Your task to perform on an android device: Clear all items from cart on costco.com. Search for jbl flip 4 on costco.com, select the first entry, add it to the cart, then select checkout. Image 0: 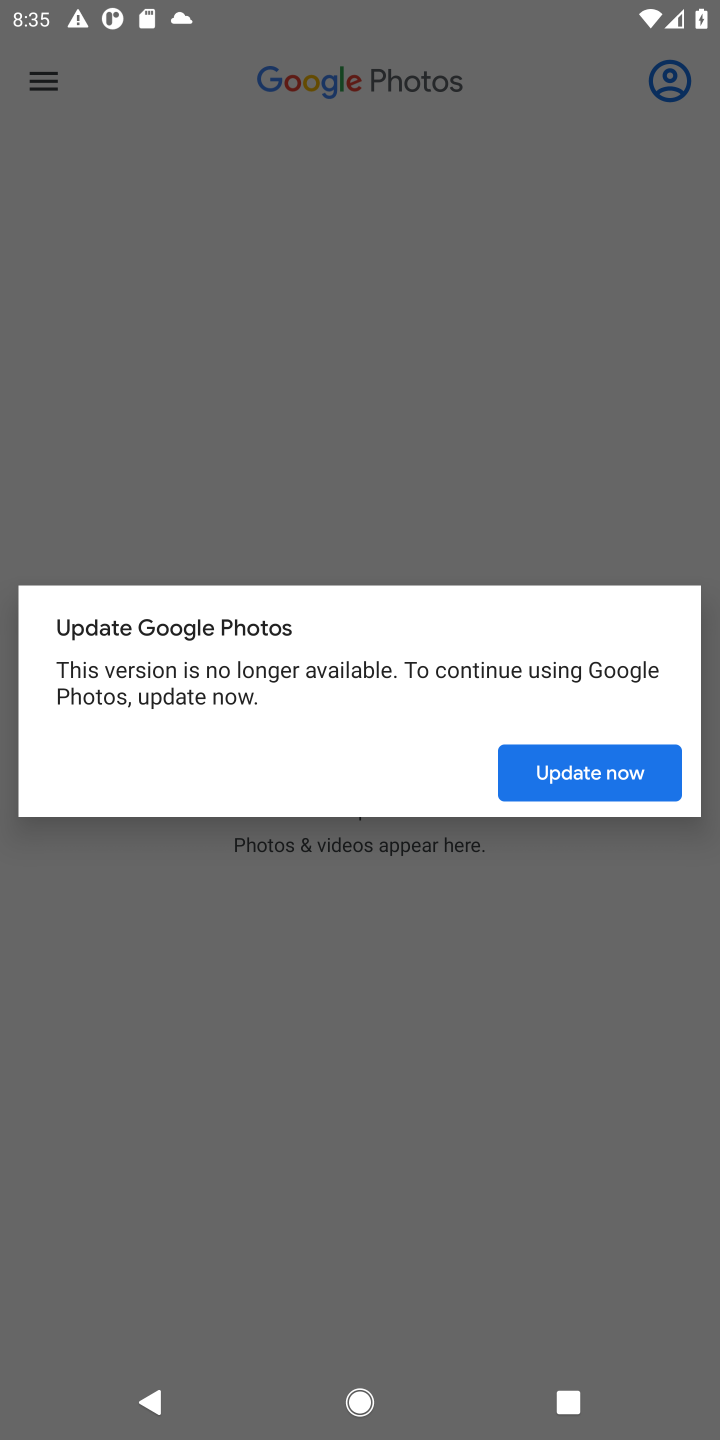
Step 0: press home button
Your task to perform on an android device: Clear all items from cart on costco.com. Search for jbl flip 4 on costco.com, select the first entry, add it to the cart, then select checkout. Image 1: 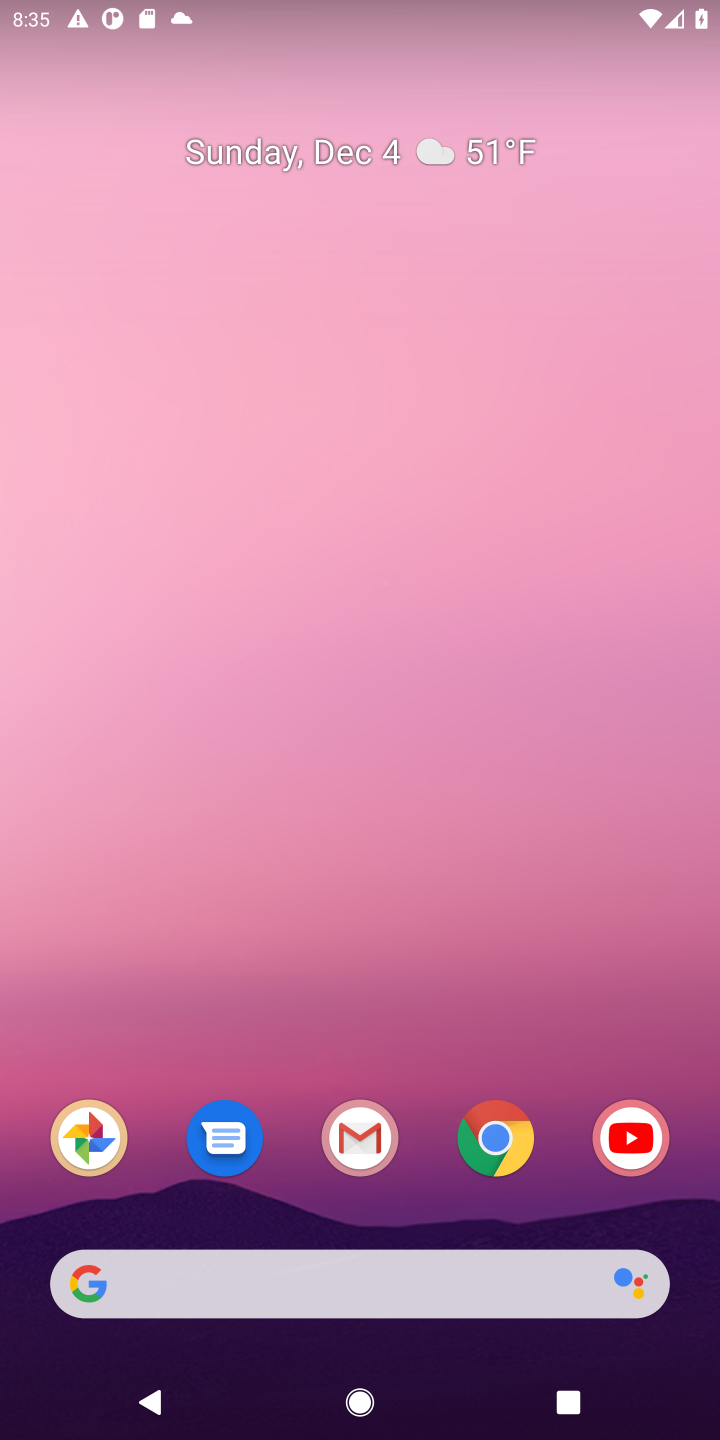
Step 1: click (515, 1160)
Your task to perform on an android device: Clear all items from cart on costco.com. Search for jbl flip 4 on costco.com, select the first entry, add it to the cart, then select checkout. Image 2: 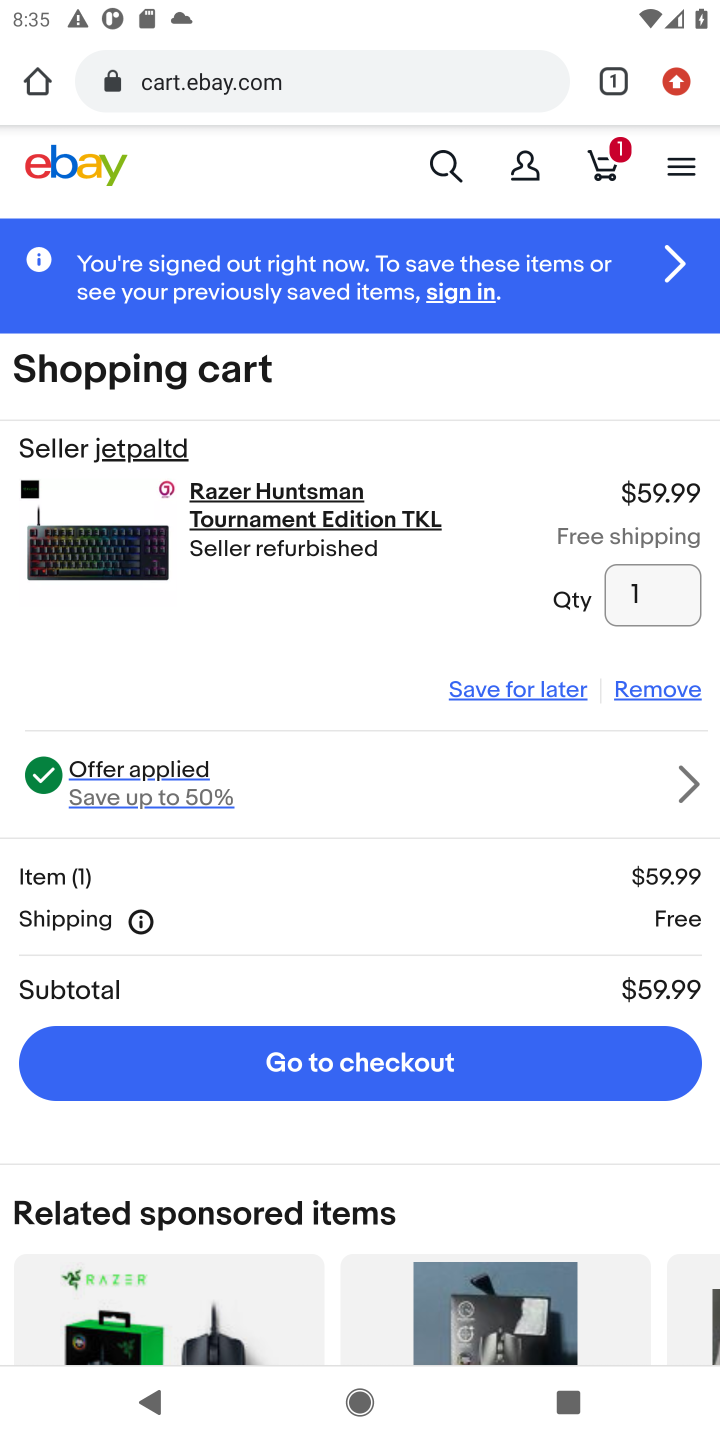
Step 2: click (350, 73)
Your task to perform on an android device: Clear all items from cart on costco.com. Search for jbl flip 4 on costco.com, select the first entry, add it to the cart, then select checkout. Image 3: 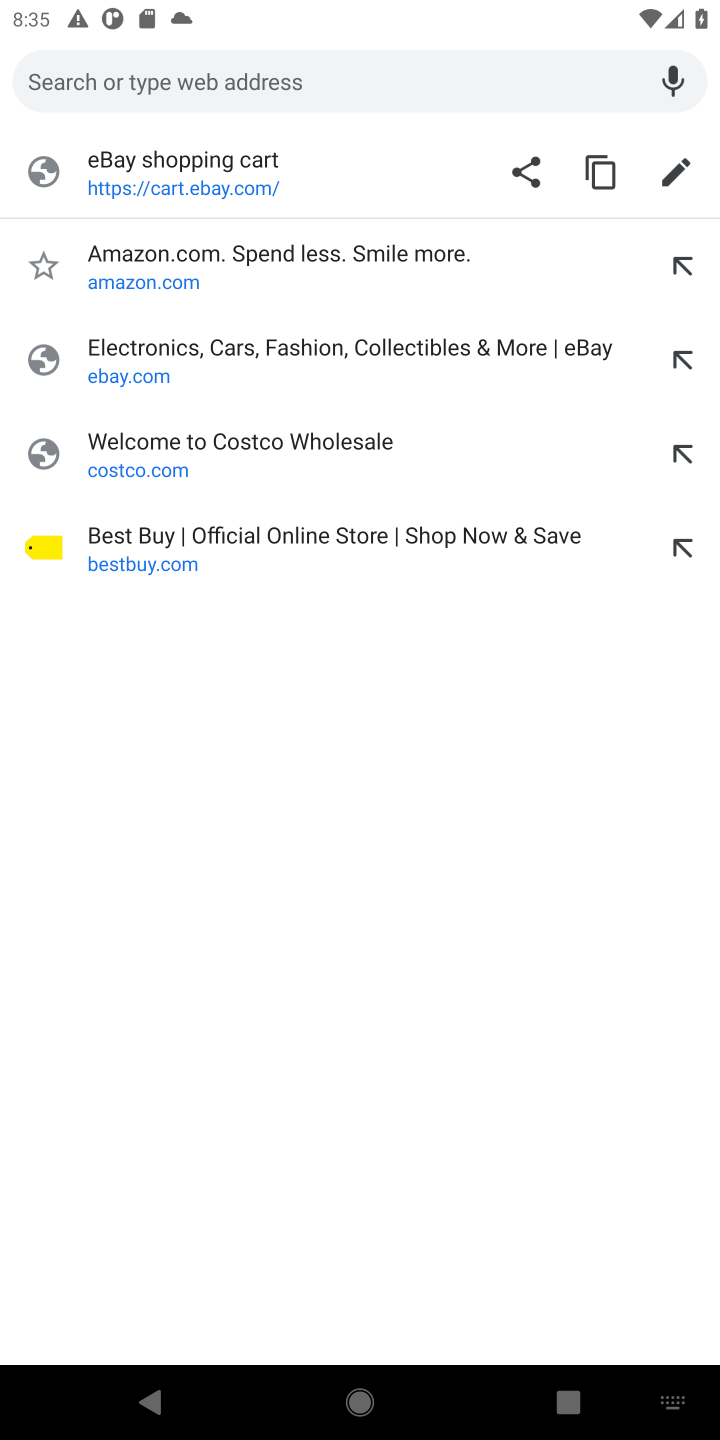
Step 3: click (213, 438)
Your task to perform on an android device: Clear all items from cart on costco.com. Search for jbl flip 4 on costco.com, select the first entry, add it to the cart, then select checkout. Image 4: 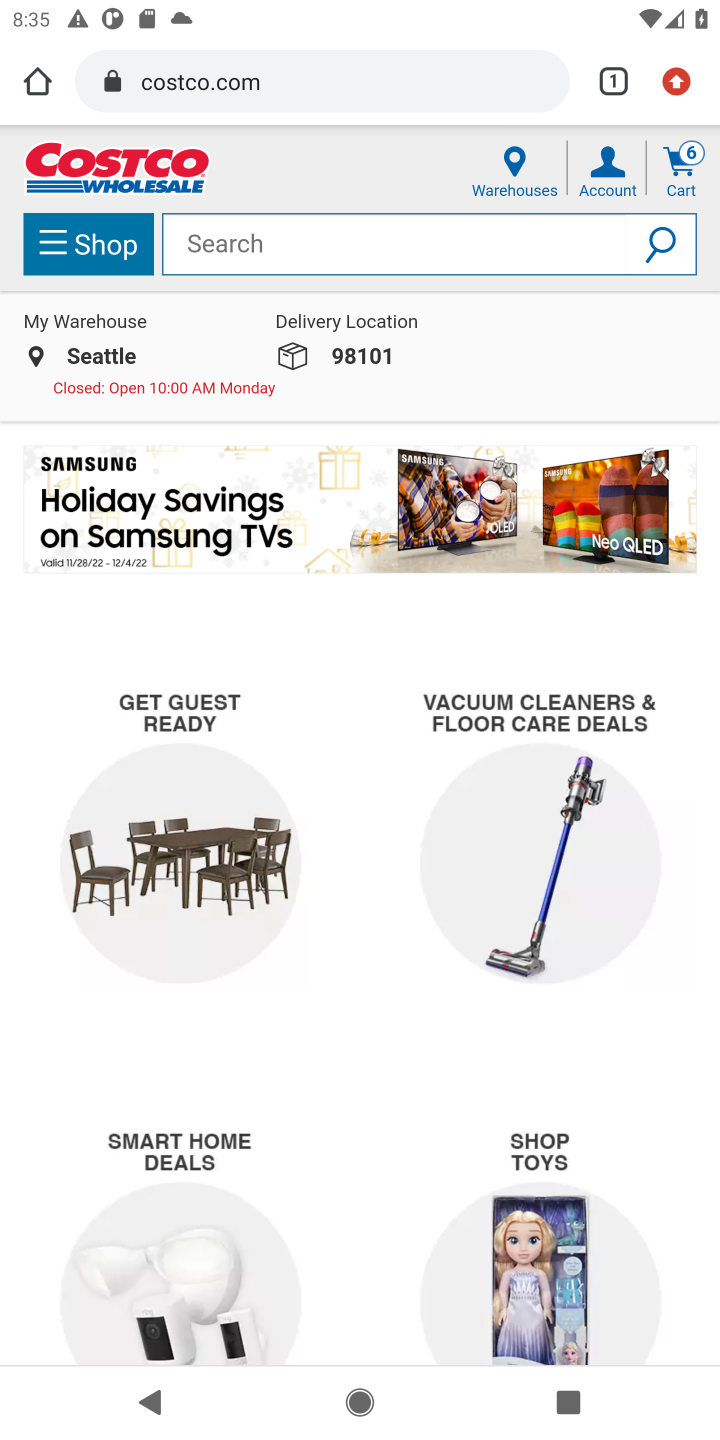
Step 4: click (682, 188)
Your task to perform on an android device: Clear all items from cart on costco.com. Search for jbl flip 4 on costco.com, select the first entry, add it to the cart, then select checkout. Image 5: 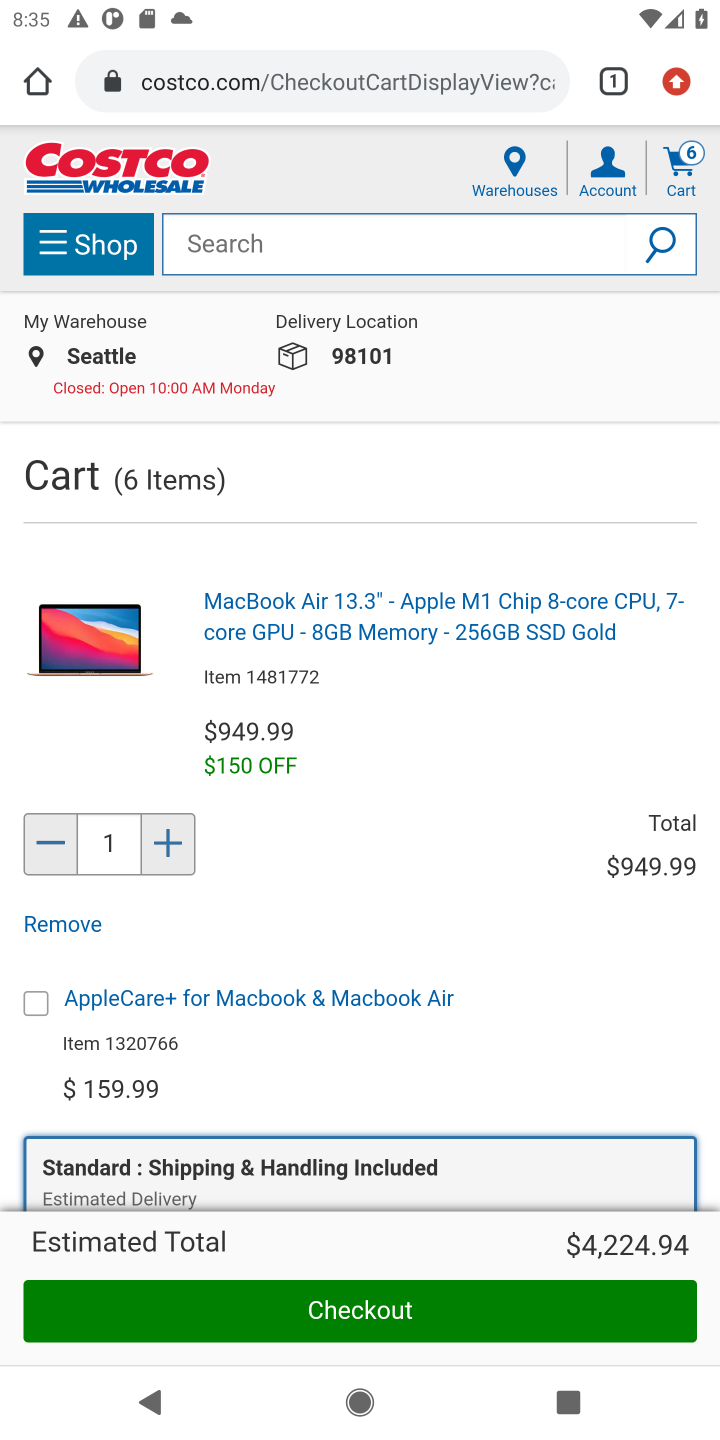
Step 5: click (63, 921)
Your task to perform on an android device: Clear all items from cart on costco.com. Search for jbl flip 4 on costco.com, select the first entry, add it to the cart, then select checkout. Image 6: 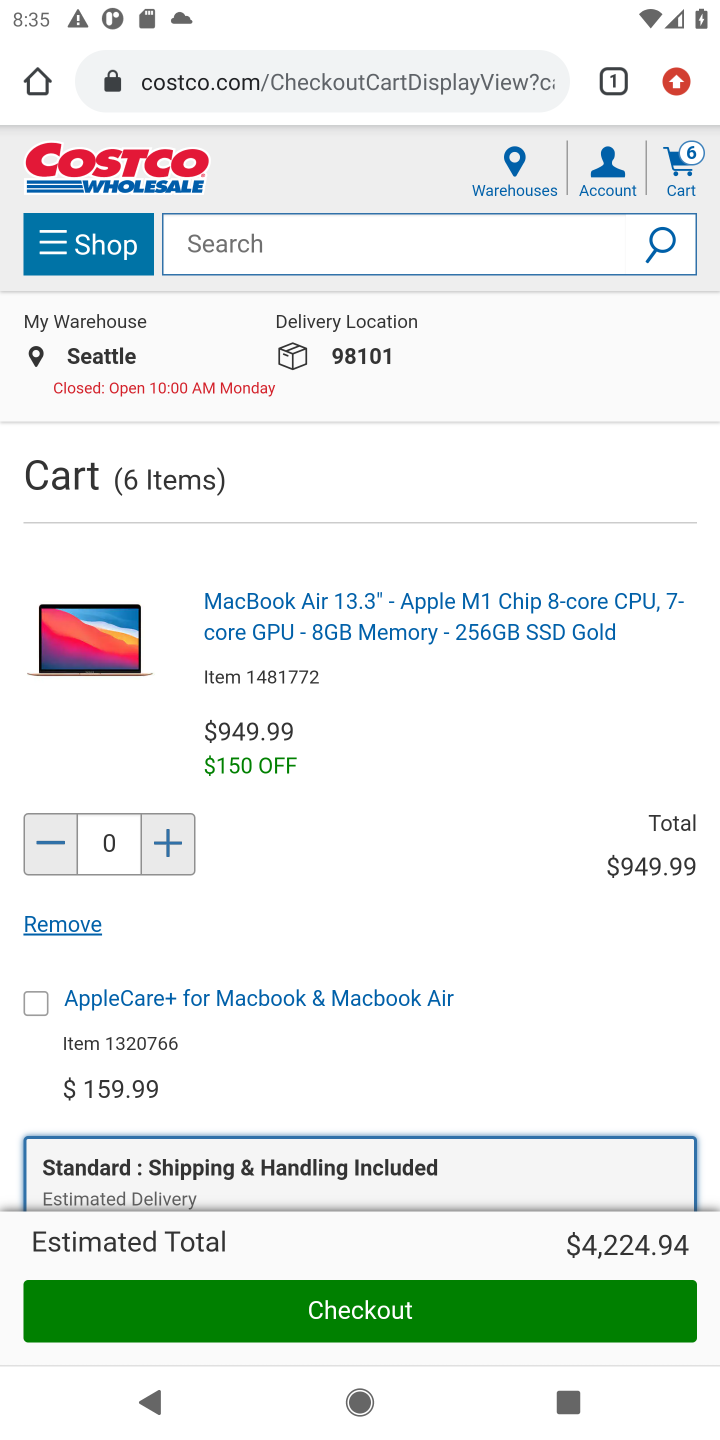
Step 6: drag from (243, 884) to (453, 259)
Your task to perform on an android device: Clear all items from cart on costco.com. Search for jbl flip 4 on costco.com, select the first entry, add it to the cart, then select checkout. Image 7: 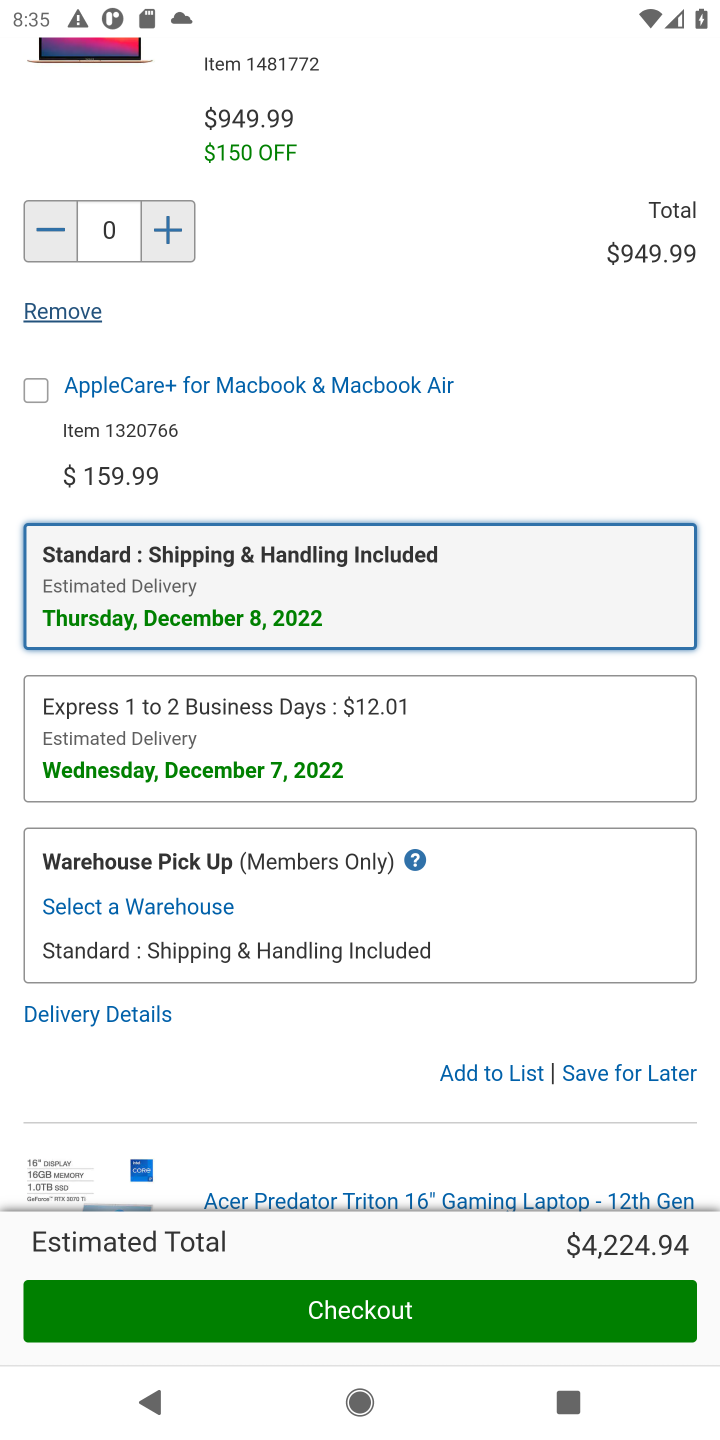
Step 7: drag from (308, 1030) to (453, 519)
Your task to perform on an android device: Clear all items from cart on costco.com. Search for jbl flip 4 on costco.com, select the first entry, add it to the cart, then select checkout. Image 8: 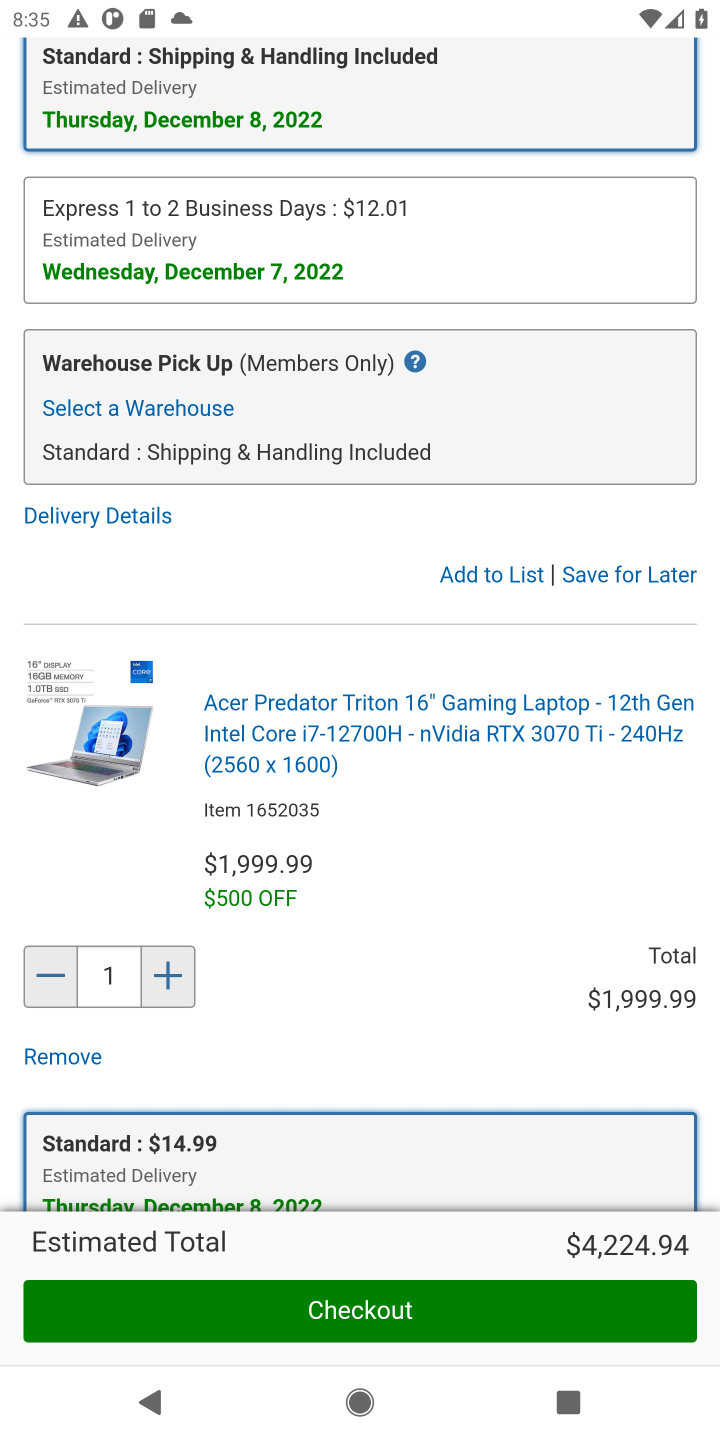
Step 8: click (61, 1055)
Your task to perform on an android device: Clear all items from cart on costco.com. Search for jbl flip 4 on costco.com, select the first entry, add it to the cart, then select checkout. Image 9: 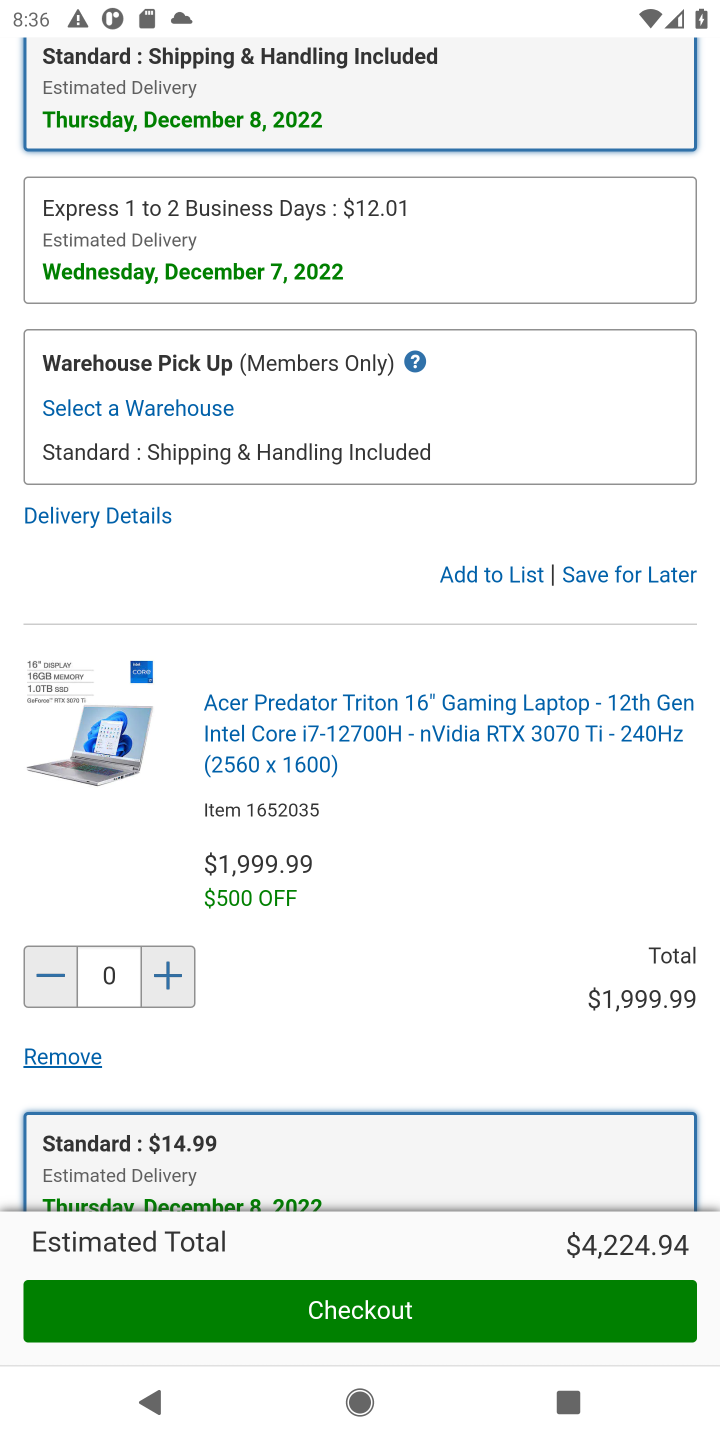
Step 9: drag from (324, 1010) to (540, 171)
Your task to perform on an android device: Clear all items from cart on costco.com. Search for jbl flip 4 on costco.com, select the first entry, add it to the cart, then select checkout. Image 10: 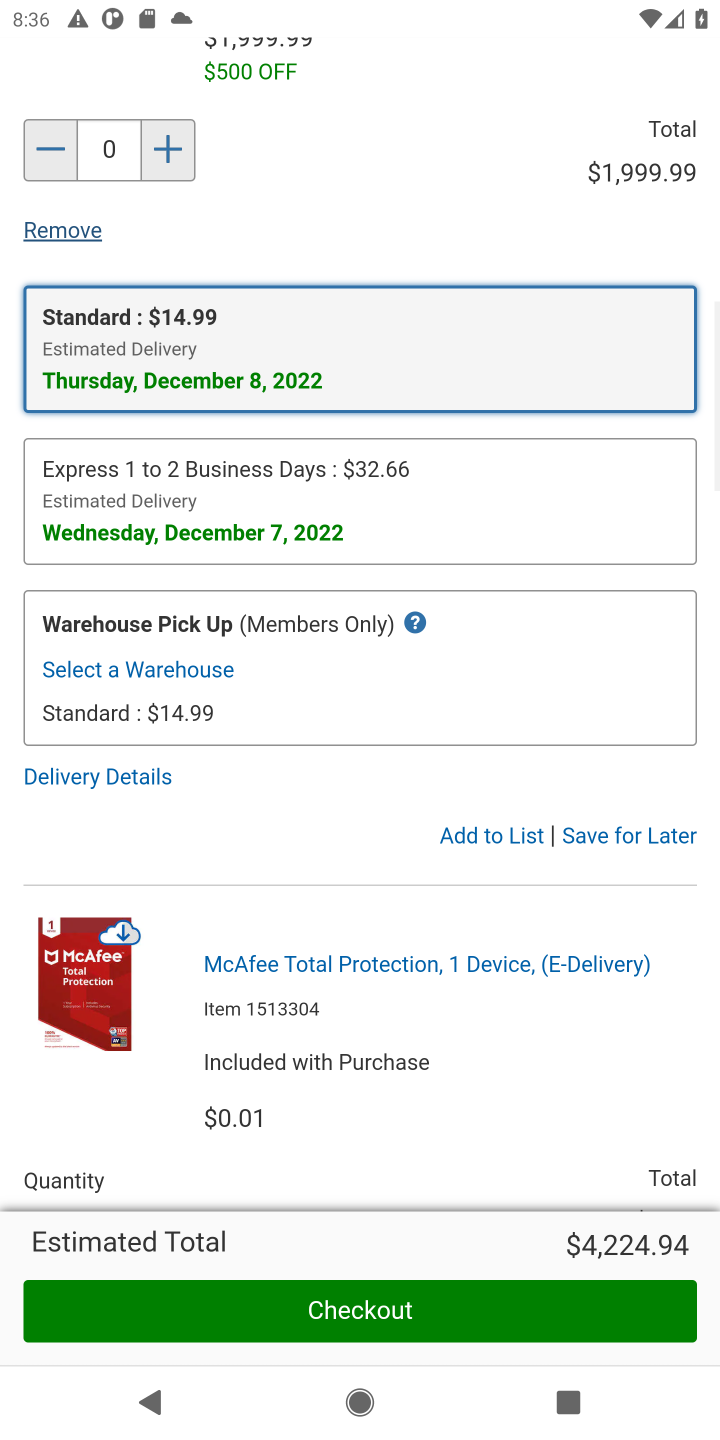
Step 10: drag from (304, 877) to (487, 177)
Your task to perform on an android device: Clear all items from cart on costco.com. Search for jbl flip 4 on costco.com, select the first entry, add it to the cart, then select checkout. Image 11: 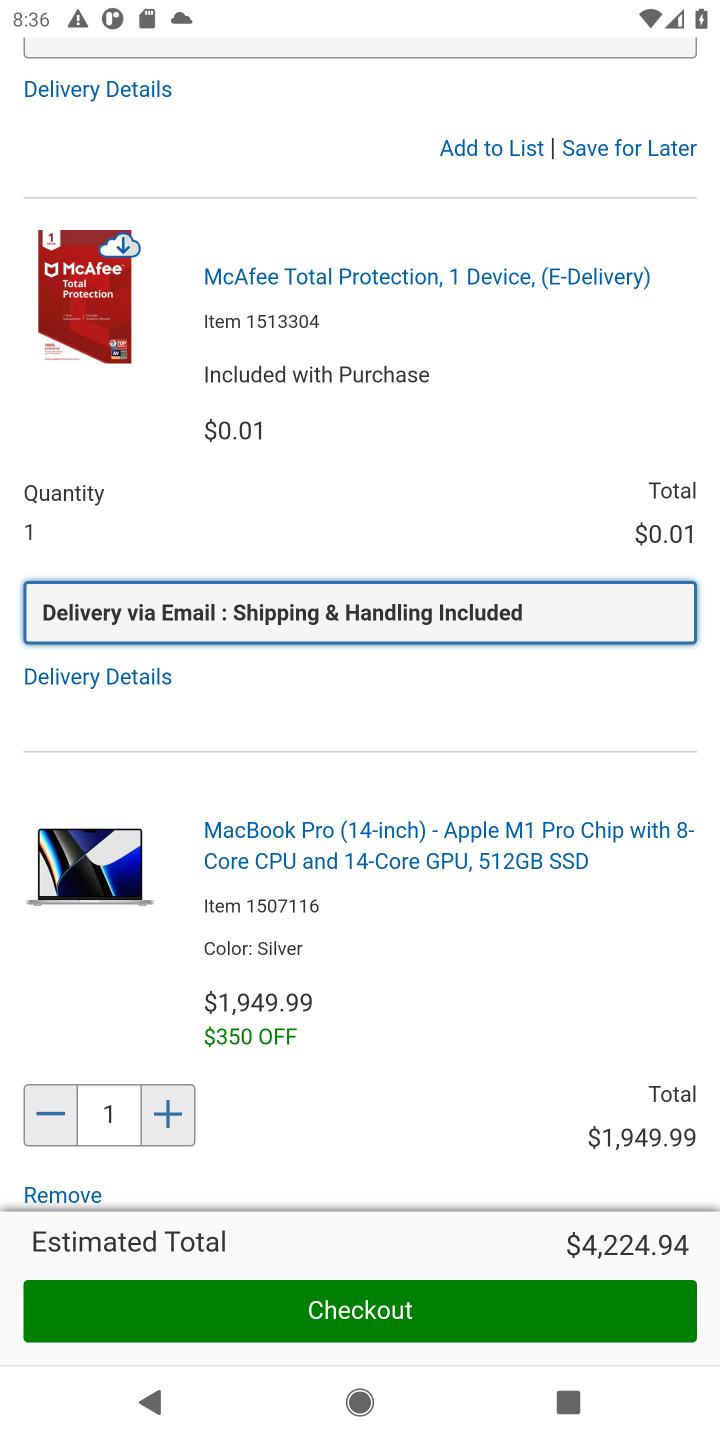
Step 11: drag from (434, 1098) to (562, 337)
Your task to perform on an android device: Clear all items from cart on costco.com. Search for jbl flip 4 on costco.com, select the first entry, add it to the cart, then select checkout. Image 12: 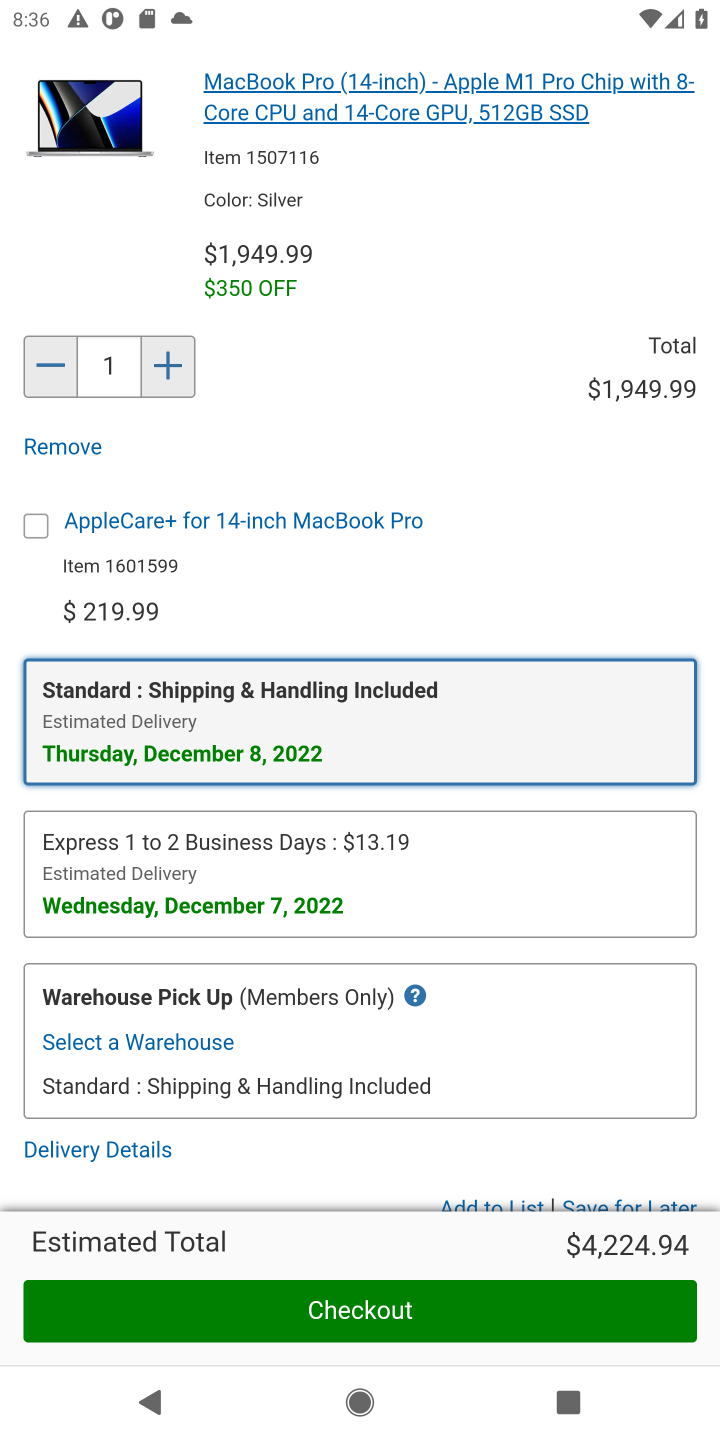
Step 12: click (66, 445)
Your task to perform on an android device: Clear all items from cart on costco.com. Search for jbl flip 4 on costco.com, select the first entry, add it to the cart, then select checkout. Image 13: 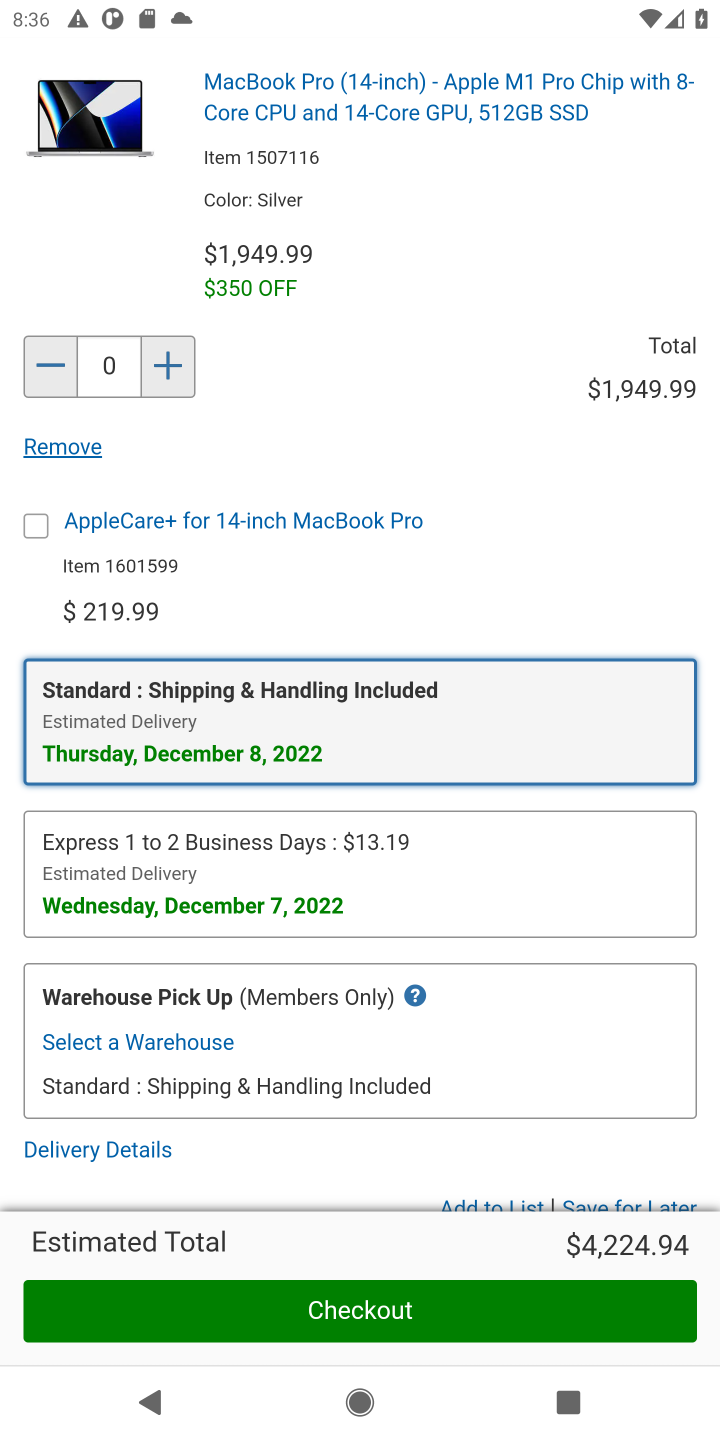
Step 13: drag from (479, 1142) to (588, 306)
Your task to perform on an android device: Clear all items from cart on costco.com. Search for jbl flip 4 on costco.com, select the first entry, add it to the cart, then select checkout. Image 14: 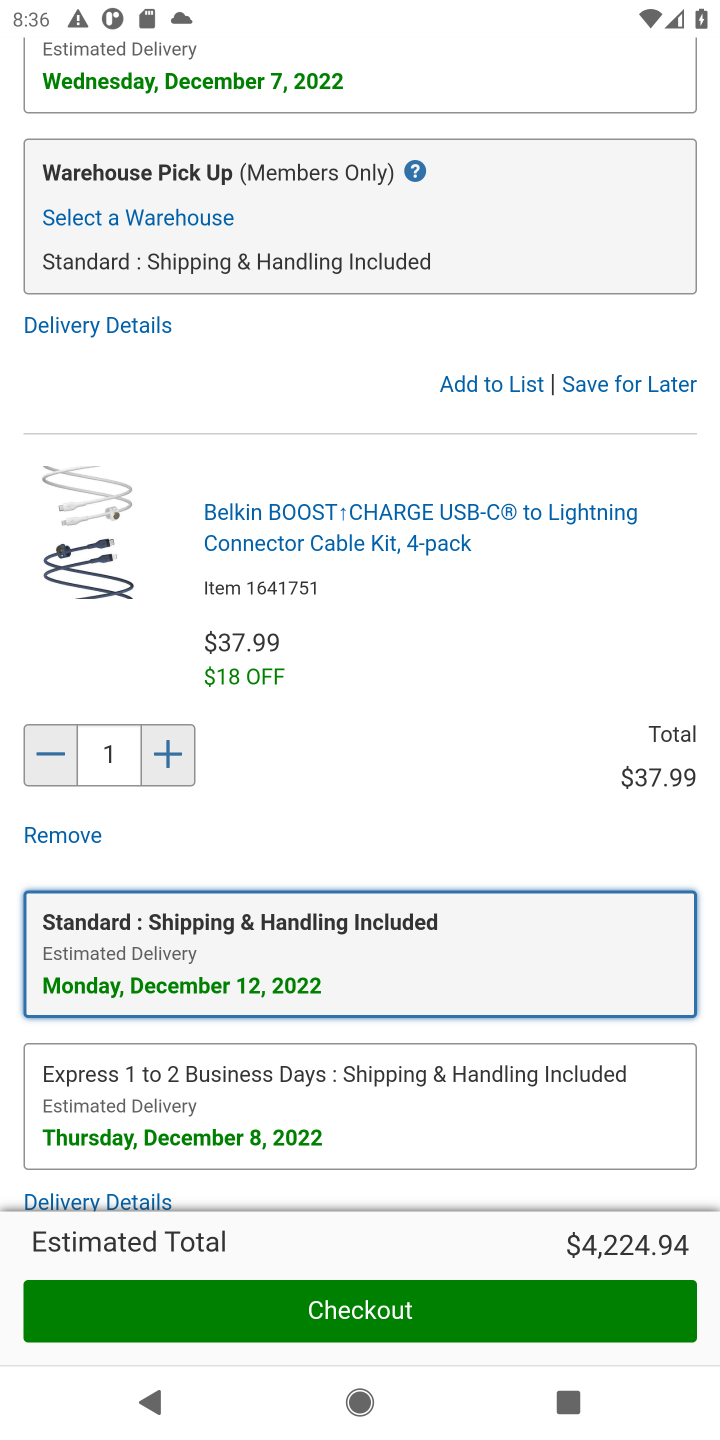
Step 14: click (74, 828)
Your task to perform on an android device: Clear all items from cart on costco.com. Search for jbl flip 4 on costco.com, select the first entry, add it to the cart, then select checkout. Image 15: 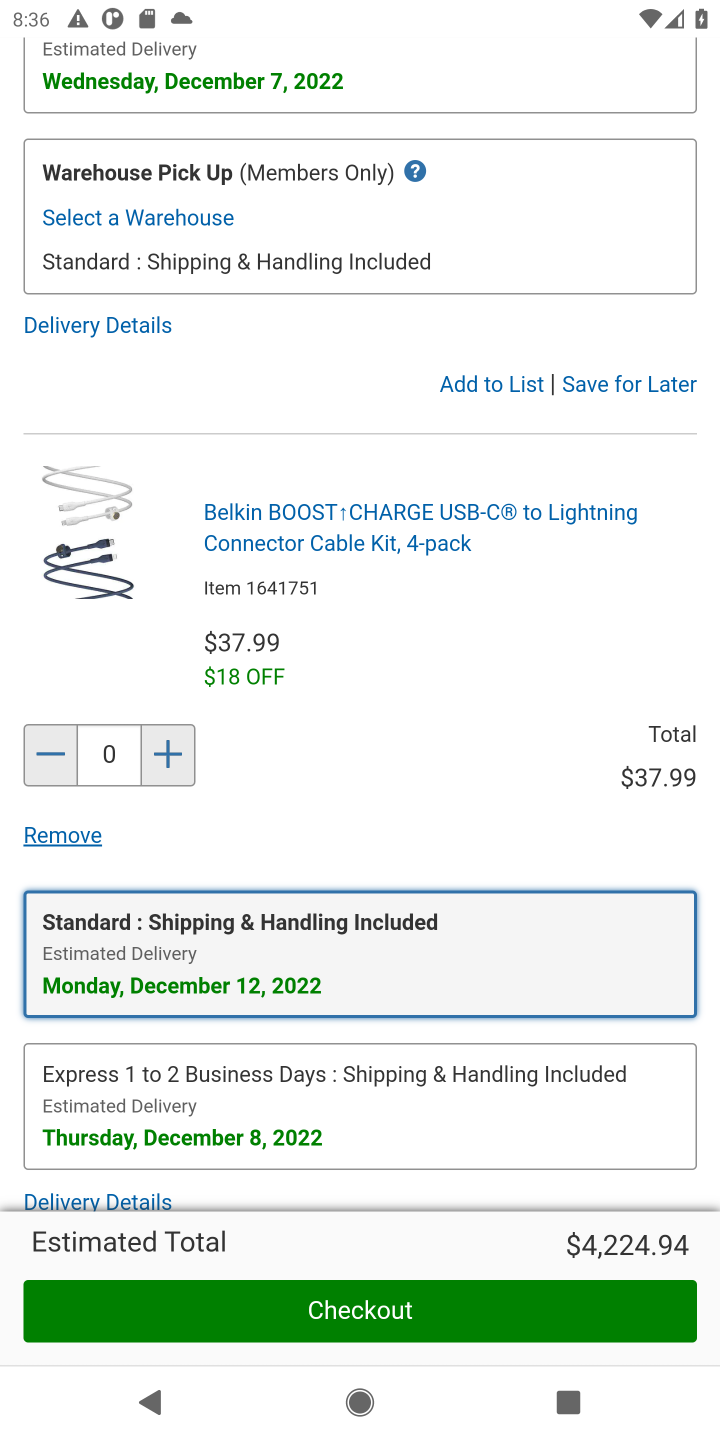
Step 15: drag from (331, 805) to (479, 114)
Your task to perform on an android device: Clear all items from cart on costco.com. Search for jbl flip 4 on costco.com, select the first entry, add it to the cart, then select checkout. Image 16: 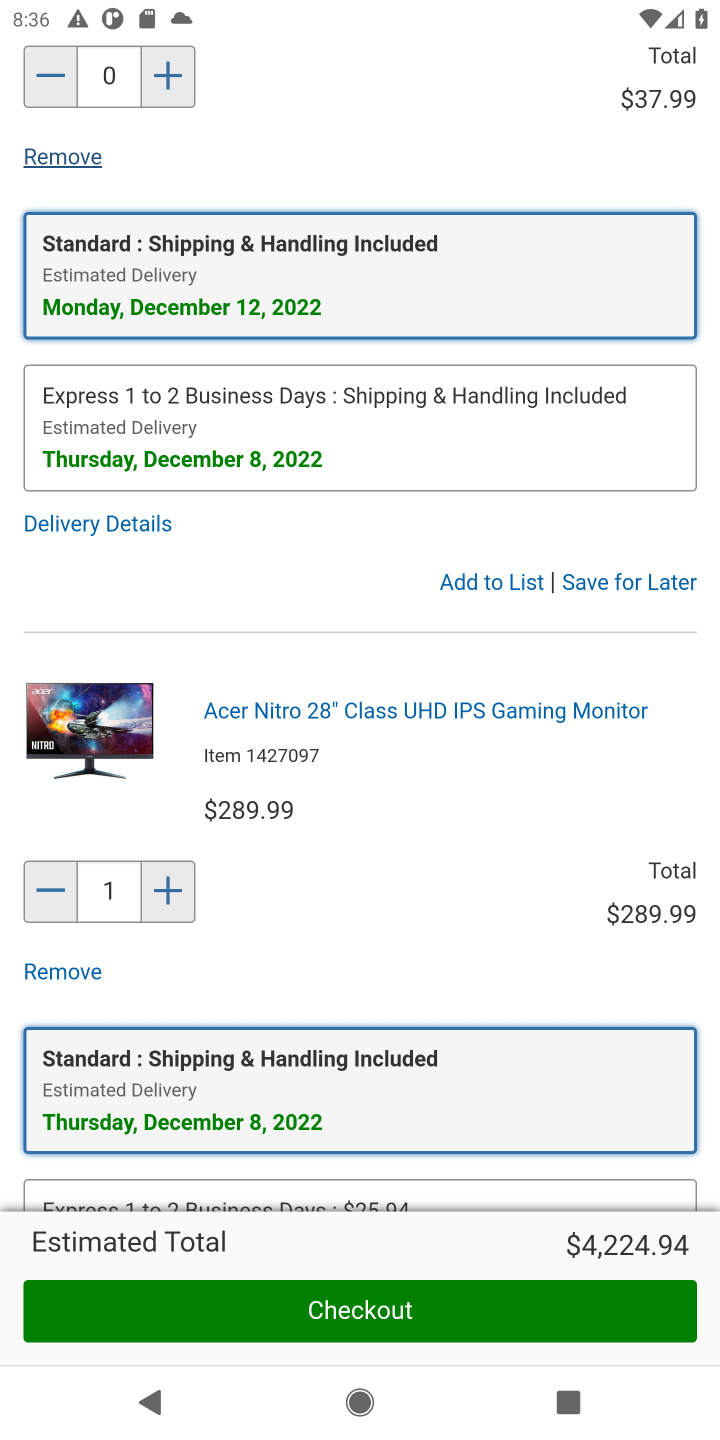
Step 16: click (79, 965)
Your task to perform on an android device: Clear all items from cart on costco.com. Search for jbl flip 4 on costco.com, select the first entry, add it to the cart, then select checkout. Image 17: 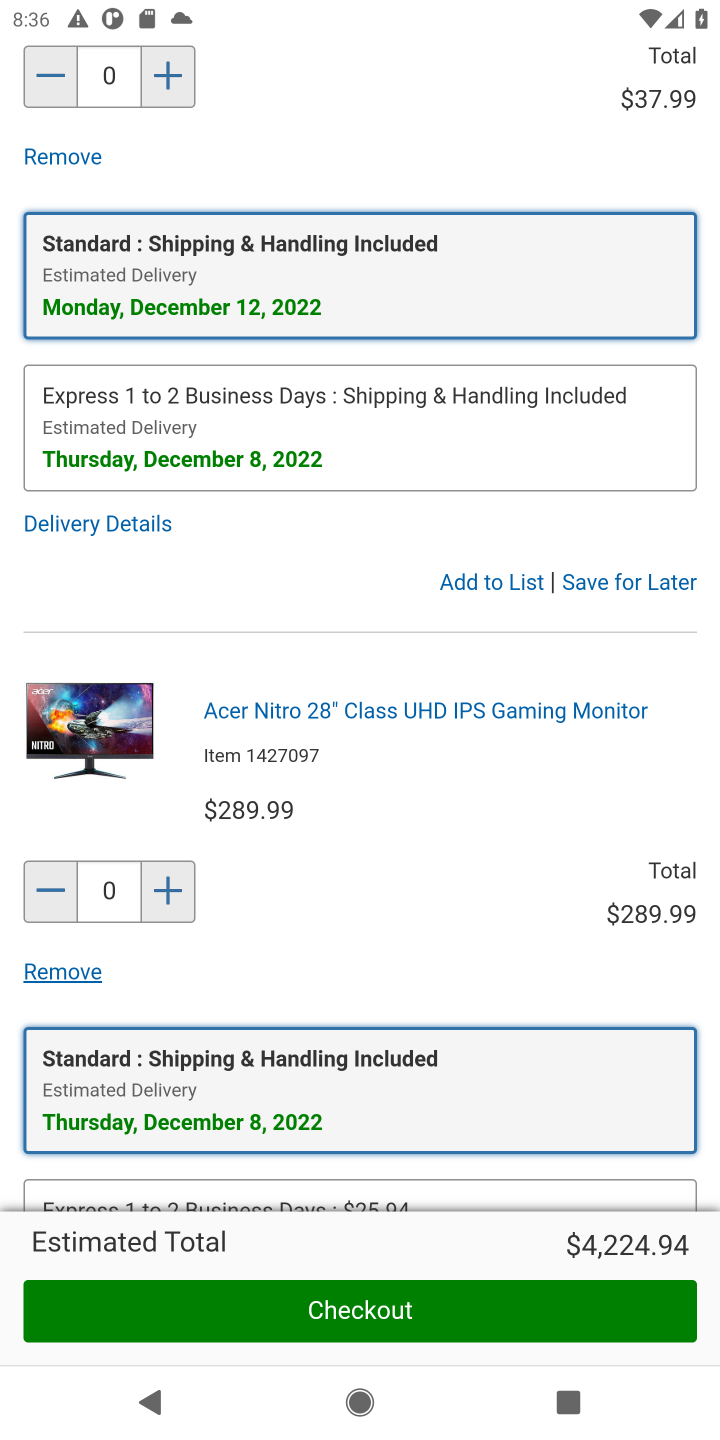
Step 17: drag from (329, 948) to (624, 122)
Your task to perform on an android device: Clear all items from cart on costco.com. Search for jbl flip 4 on costco.com, select the first entry, add it to the cart, then select checkout. Image 18: 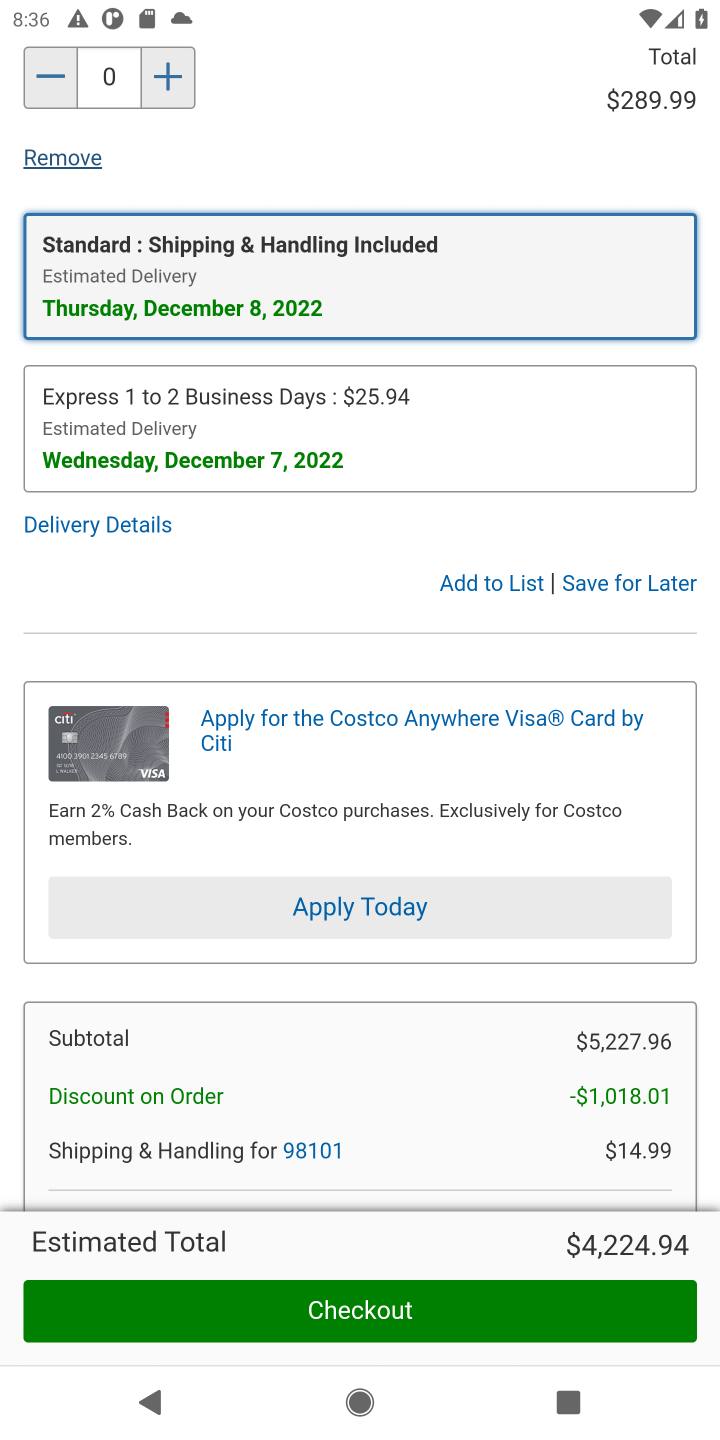
Step 18: press back button
Your task to perform on an android device: Clear all items from cart on costco.com. Search for jbl flip 4 on costco.com, select the first entry, add it to the cart, then select checkout. Image 19: 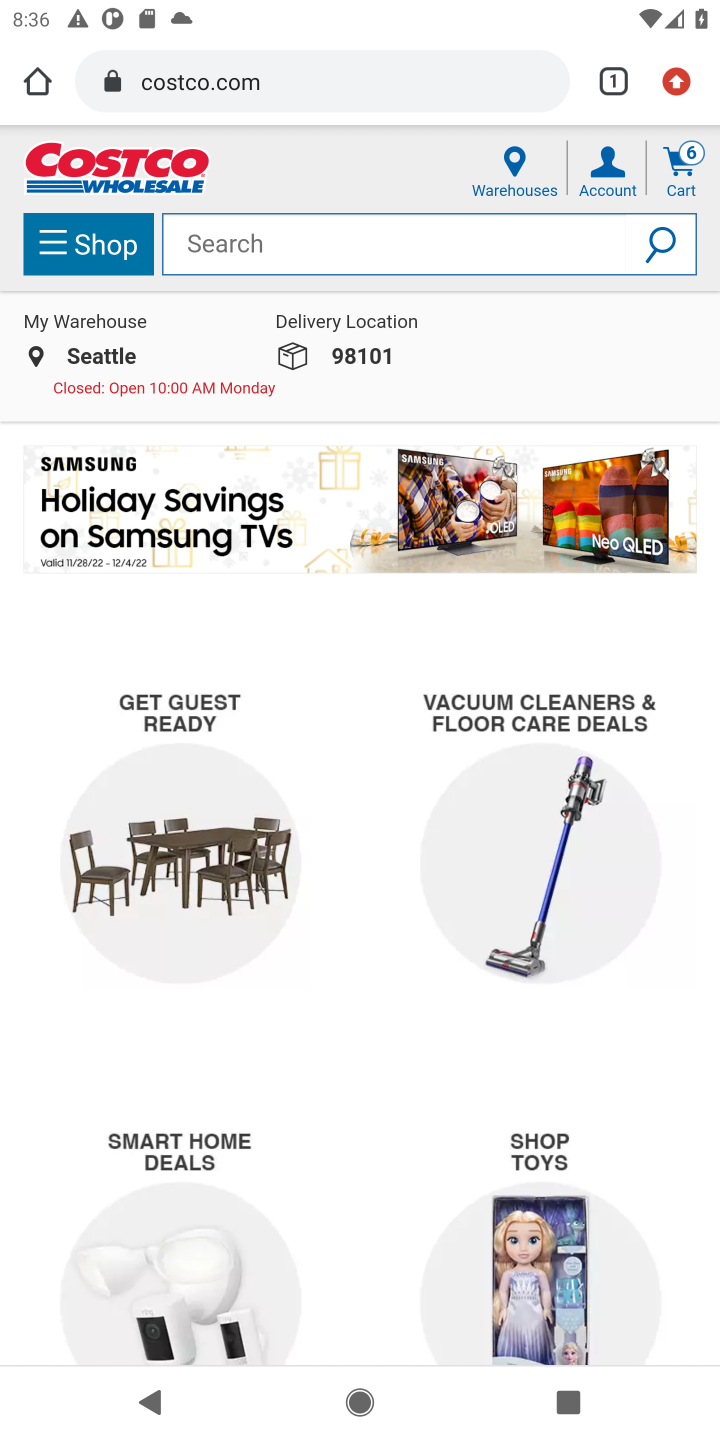
Step 19: click (388, 240)
Your task to perform on an android device: Clear all items from cart on costco.com. Search for jbl flip 4 on costco.com, select the first entry, add it to the cart, then select checkout. Image 20: 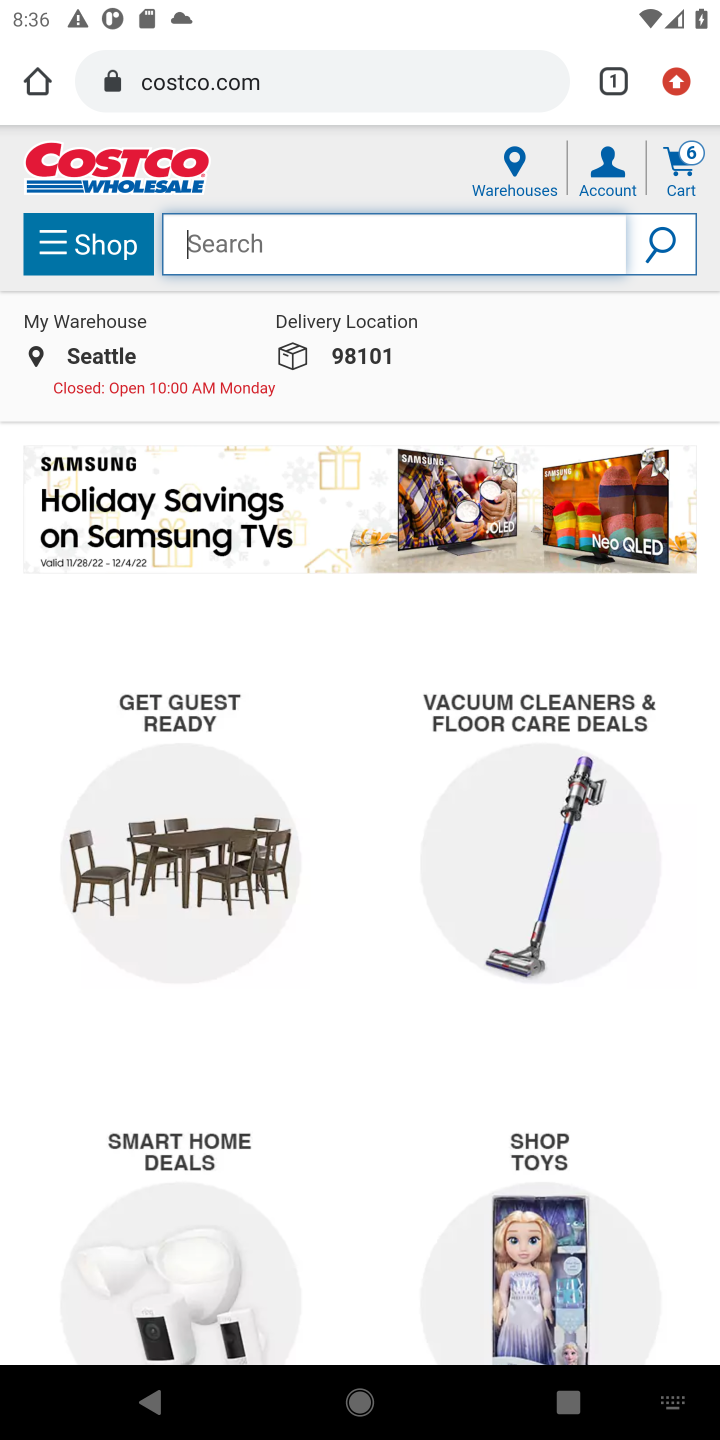
Step 20: type " jbl flip 4"
Your task to perform on an android device: Clear all items from cart on costco.com. Search for jbl flip 4 on costco.com, select the first entry, add it to the cart, then select checkout. Image 21: 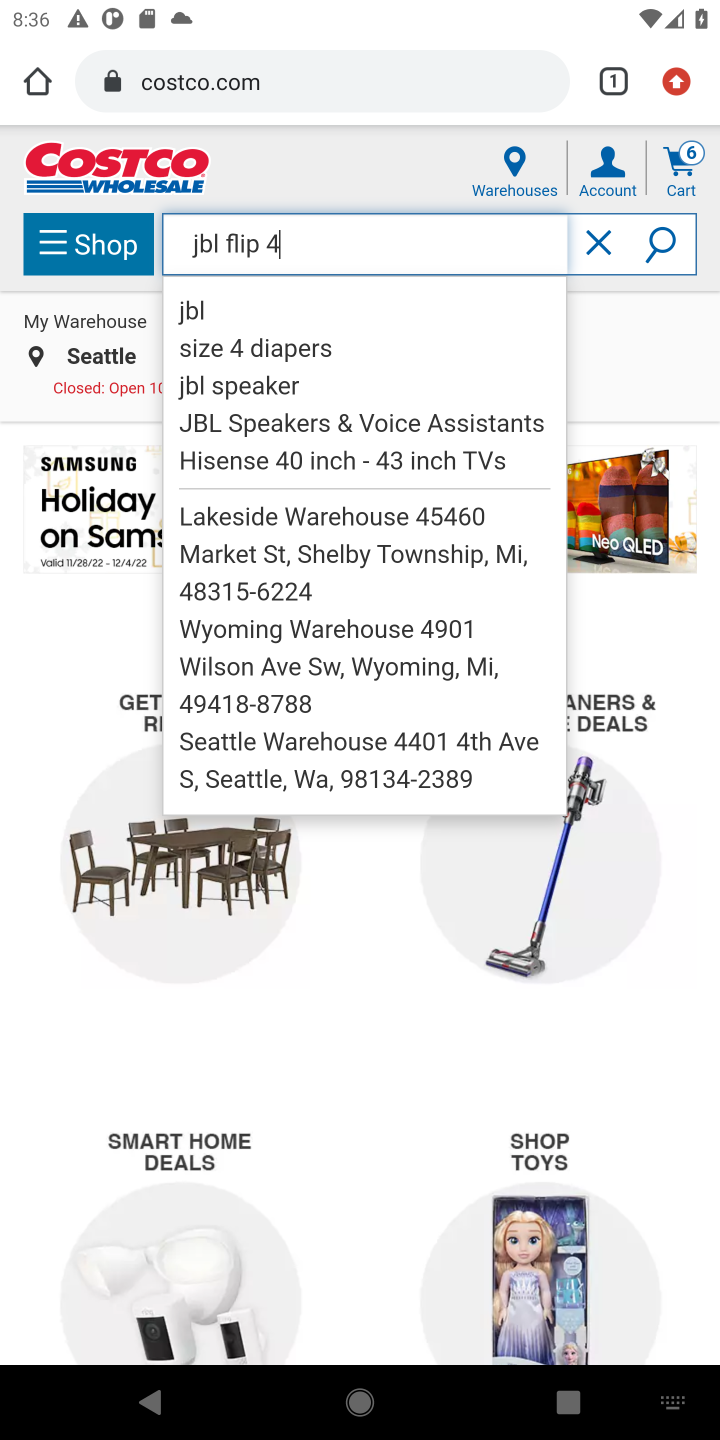
Step 21: press enter
Your task to perform on an android device: Clear all items from cart on costco.com. Search for jbl flip 4 on costco.com, select the first entry, add it to the cart, then select checkout. Image 22: 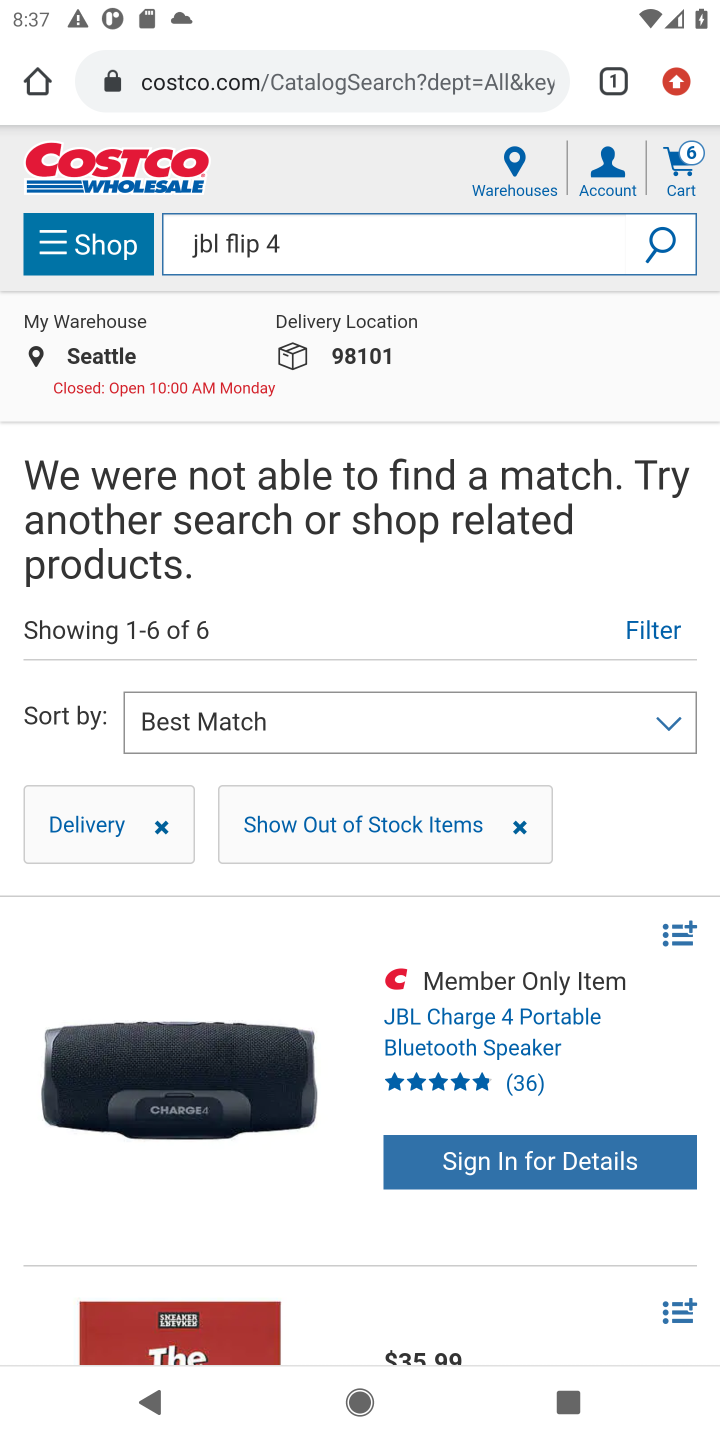
Step 22: task complete